Your task to perform on an android device: Open the Play Movies app and select the watchlist tab. Image 0: 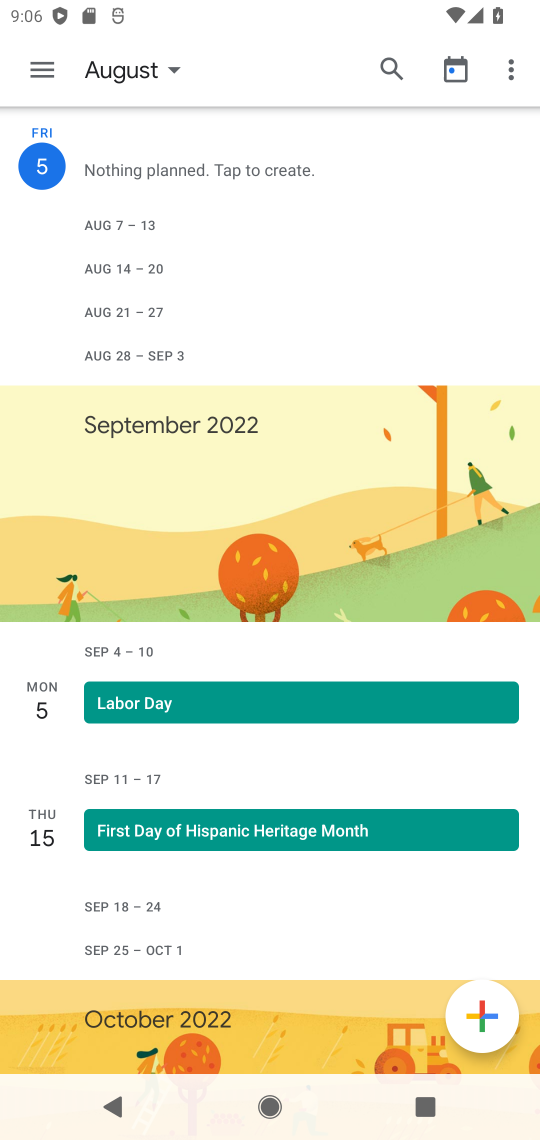
Step 0: press home button
Your task to perform on an android device: Open the Play Movies app and select the watchlist tab. Image 1: 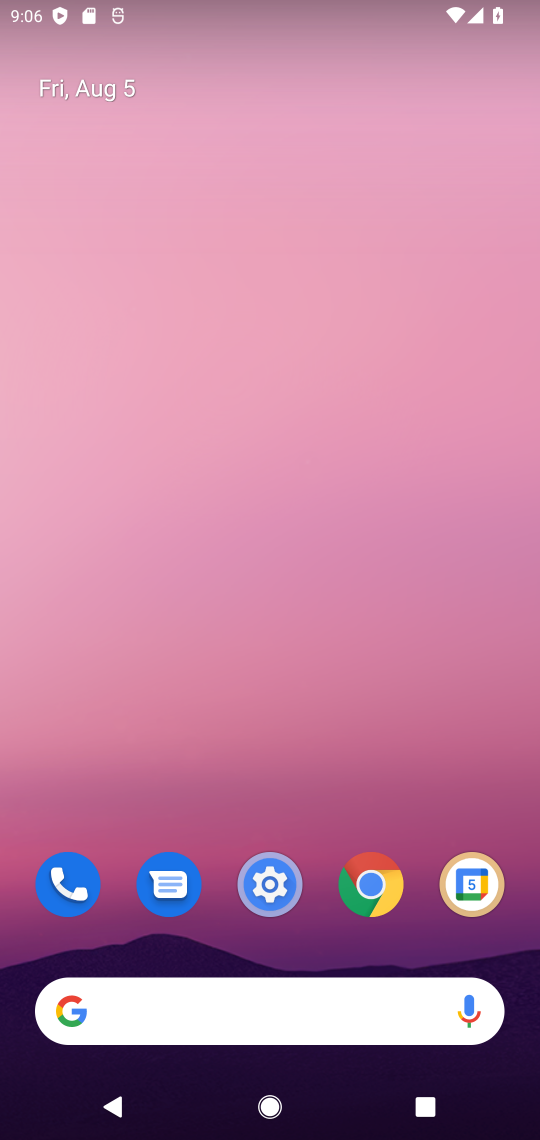
Step 1: task complete